Your task to perform on an android device: find photos in the google photos app Image 0: 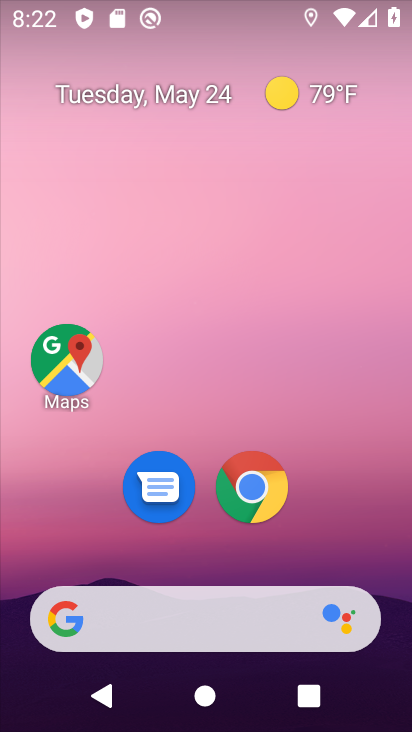
Step 0: drag from (298, 560) to (237, 56)
Your task to perform on an android device: find photos in the google photos app Image 1: 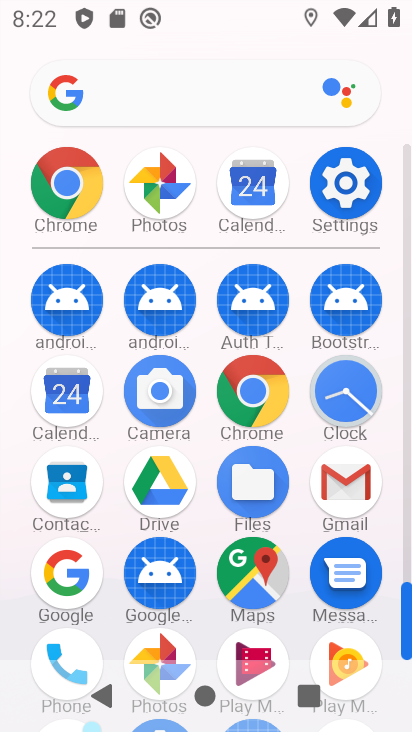
Step 1: click (159, 182)
Your task to perform on an android device: find photos in the google photos app Image 2: 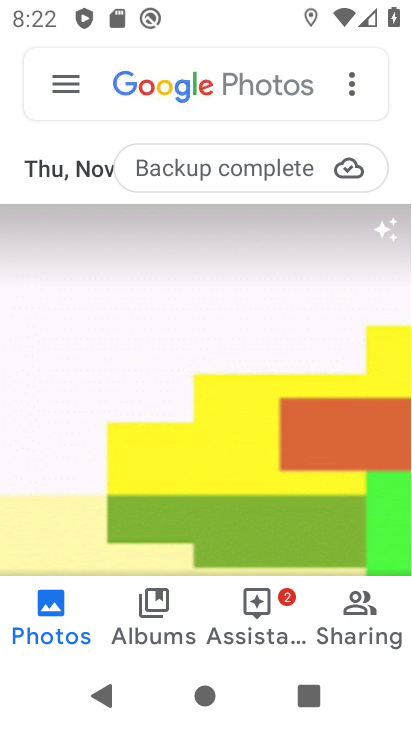
Step 2: click (57, 624)
Your task to perform on an android device: find photos in the google photos app Image 3: 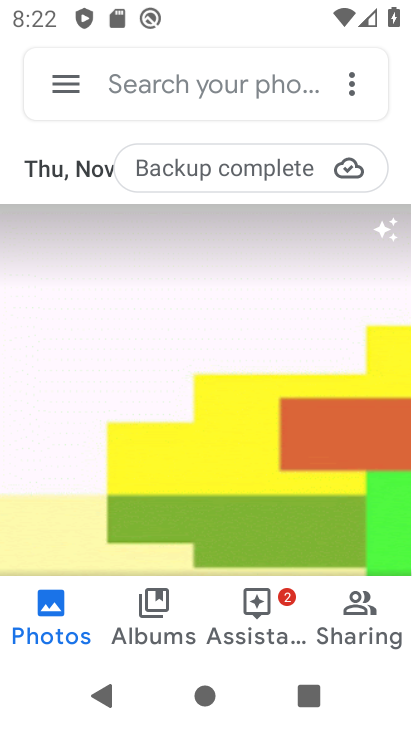
Step 3: task complete